Your task to perform on an android device: Open display settings Image 0: 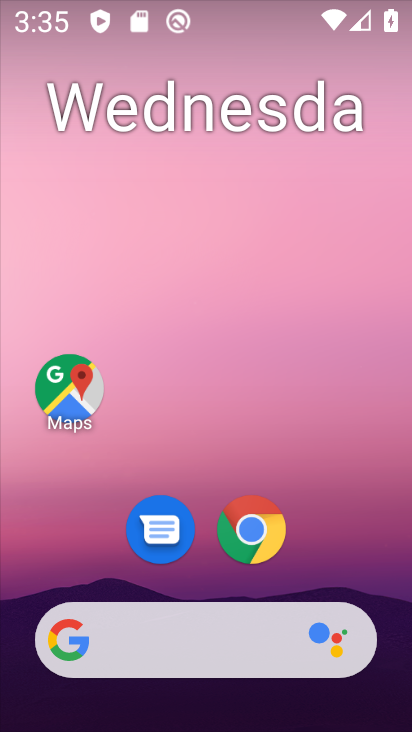
Step 0: drag from (70, 591) to (194, 164)
Your task to perform on an android device: Open display settings Image 1: 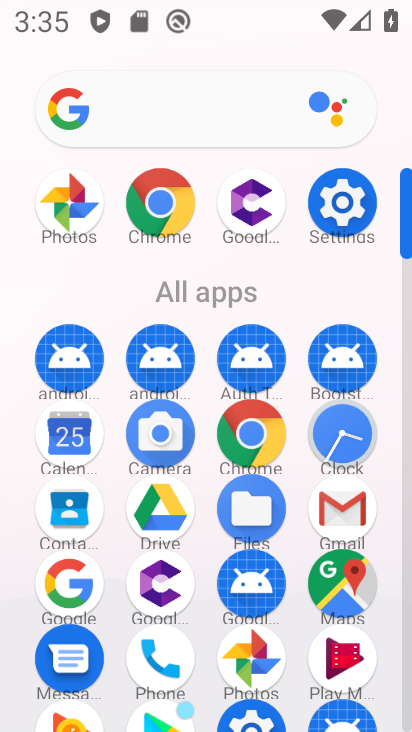
Step 1: drag from (84, 668) to (183, 338)
Your task to perform on an android device: Open display settings Image 2: 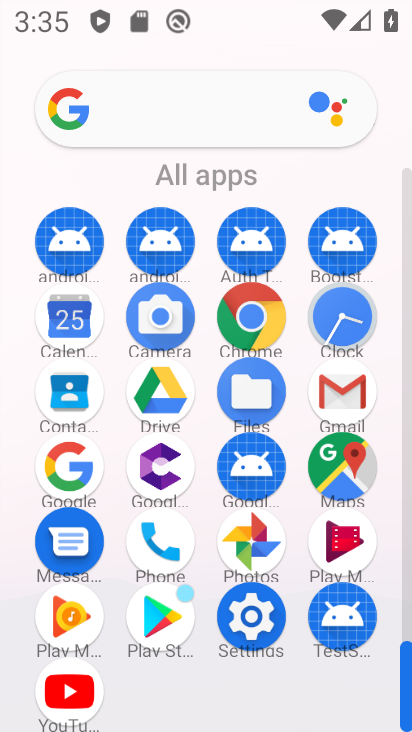
Step 2: click (259, 602)
Your task to perform on an android device: Open display settings Image 3: 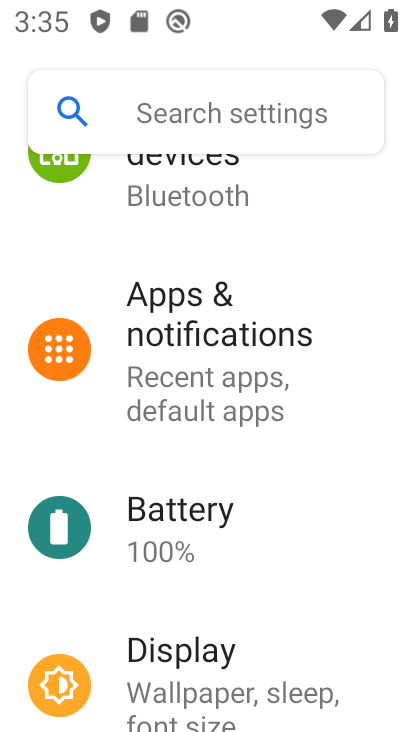
Step 3: click (180, 667)
Your task to perform on an android device: Open display settings Image 4: 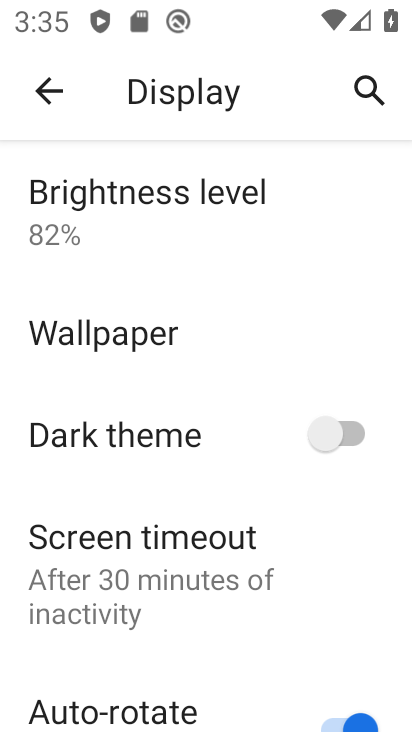
Step 4: task complete